Your task to perform on an android device: Open eBay Image 0: 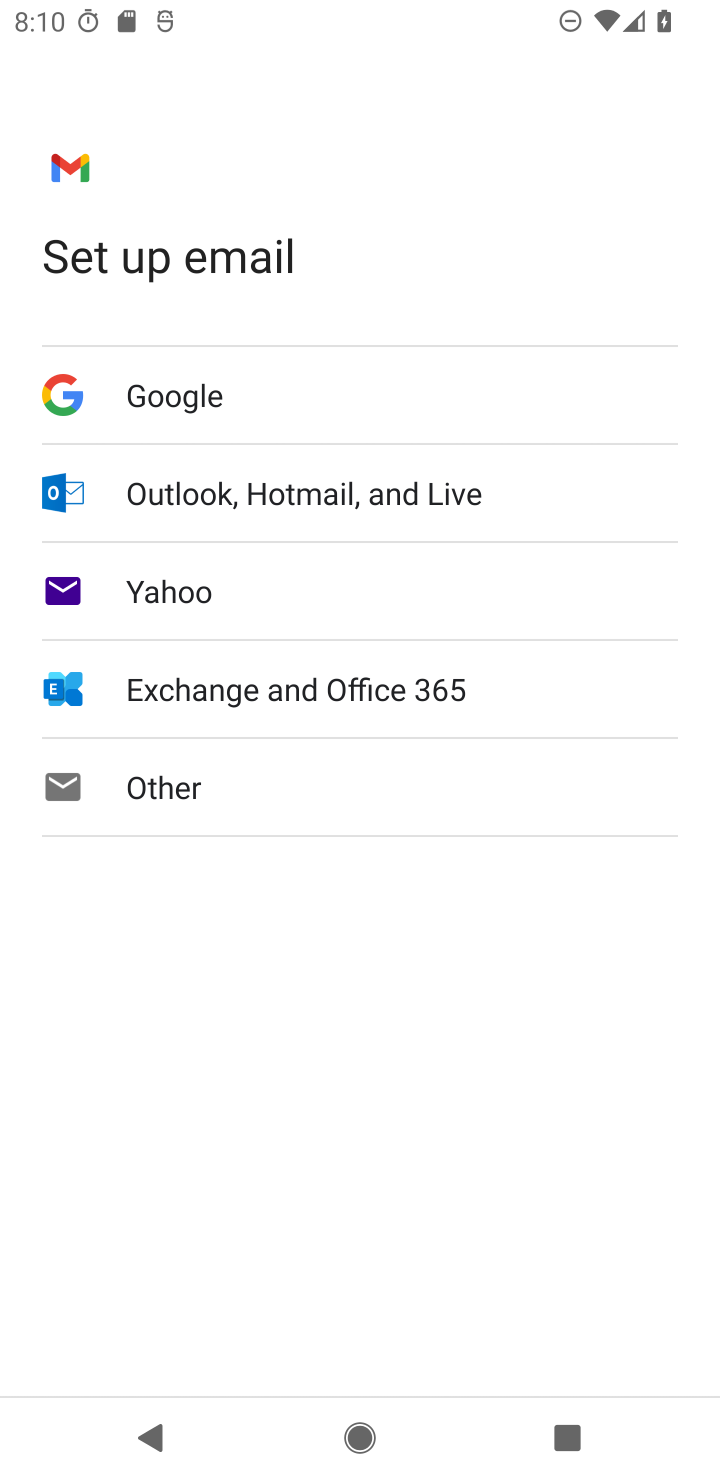
Step 0: press home button
Your task to perform on an android device: Open eBay Image 1: 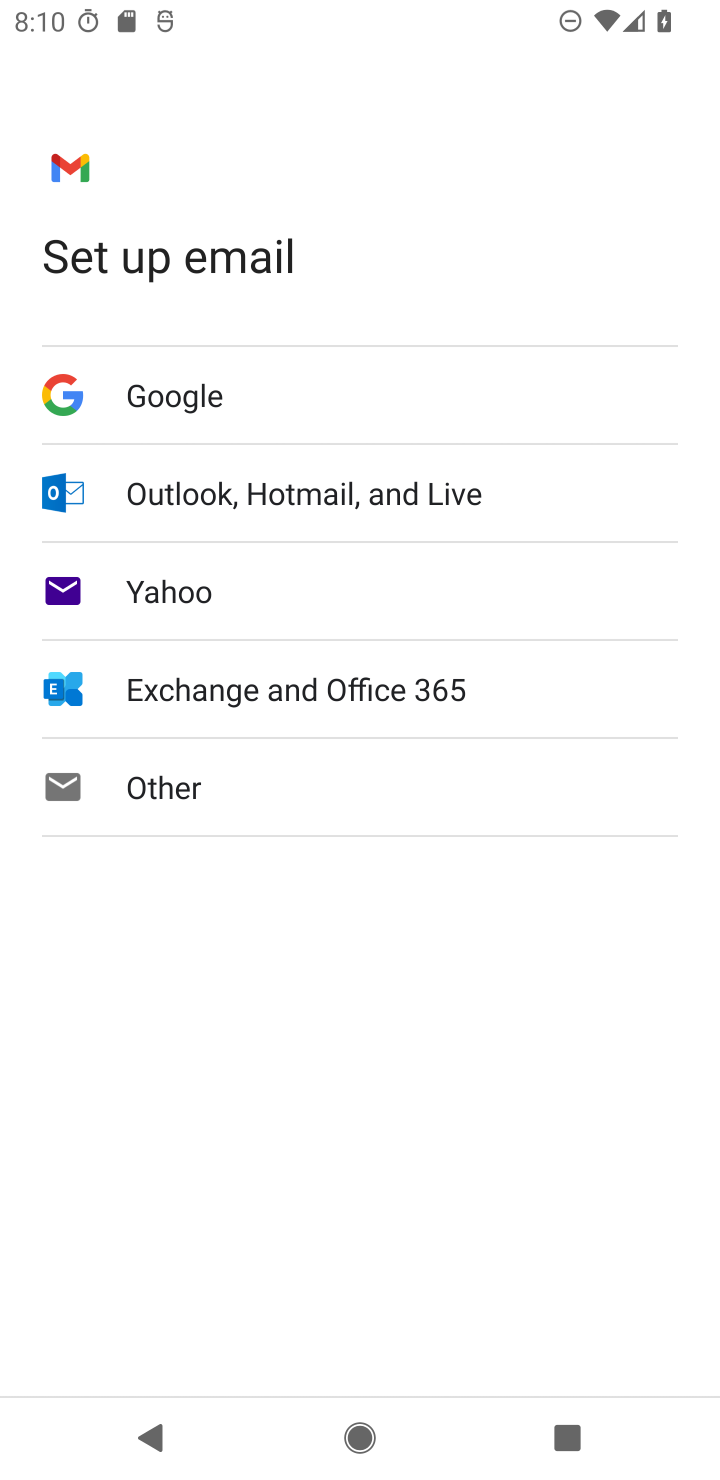
Step 1: press home button
Your task to perform on an android device: Open eBay Image 2: 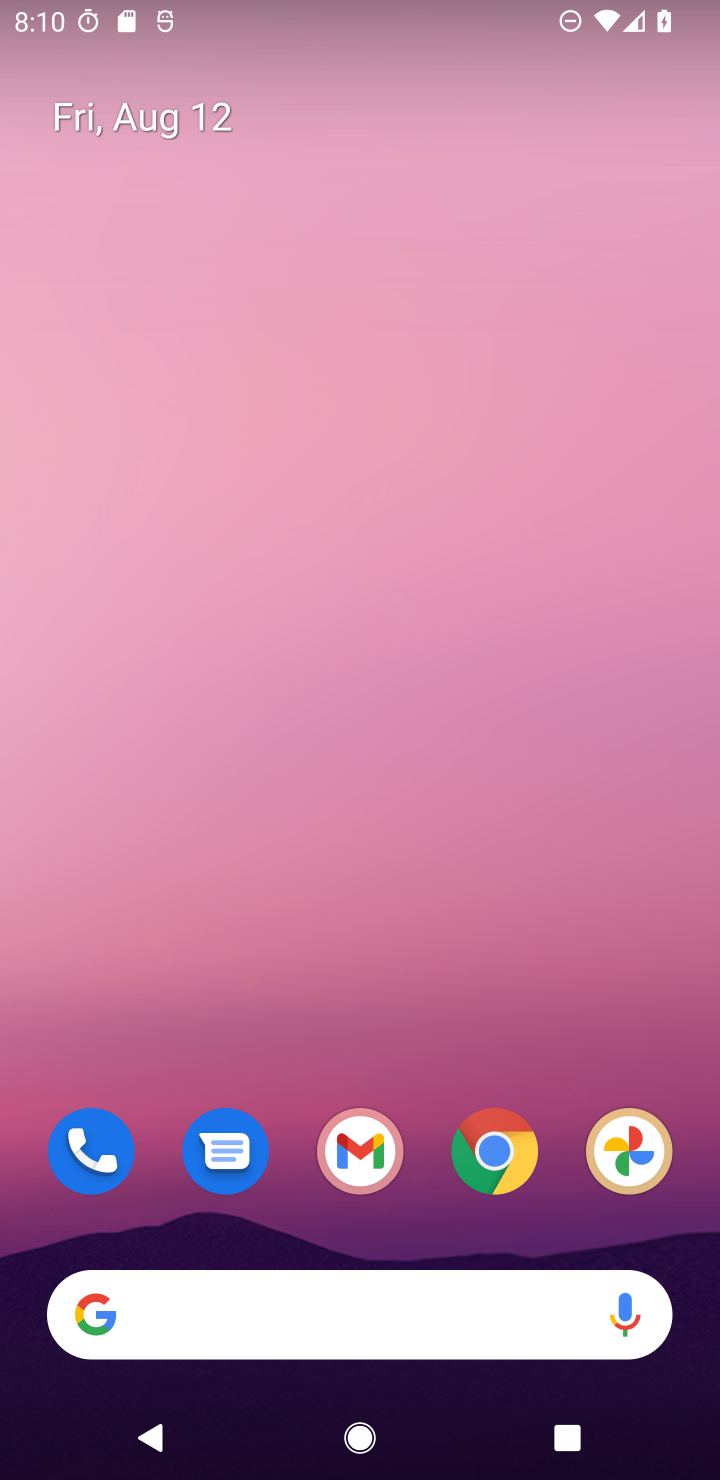
Step 2: drag from (357, 987) to (372, 20)
Your task to perform on an android device: Open eBay Image 3: 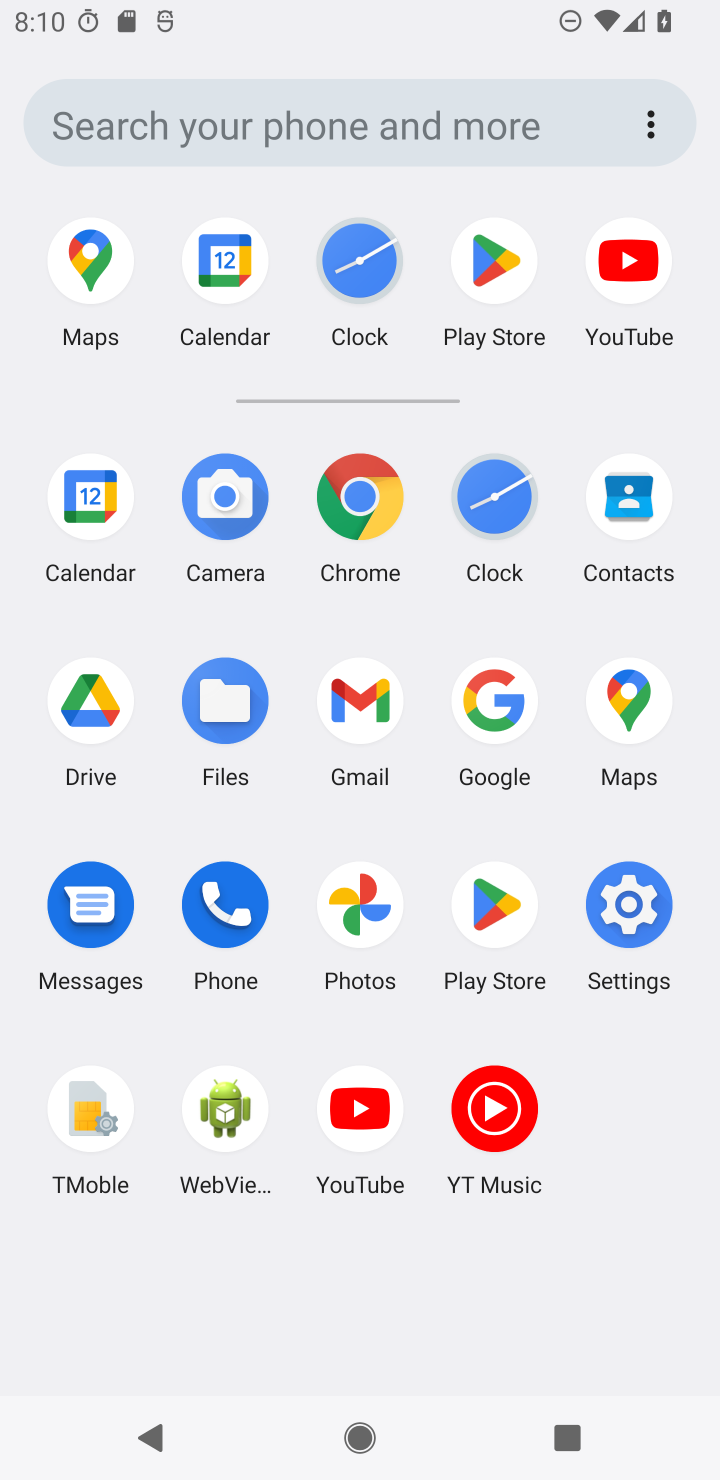
Step 3: click (367, 493)
Your task to perform on an android device: Open eBay Image 4: 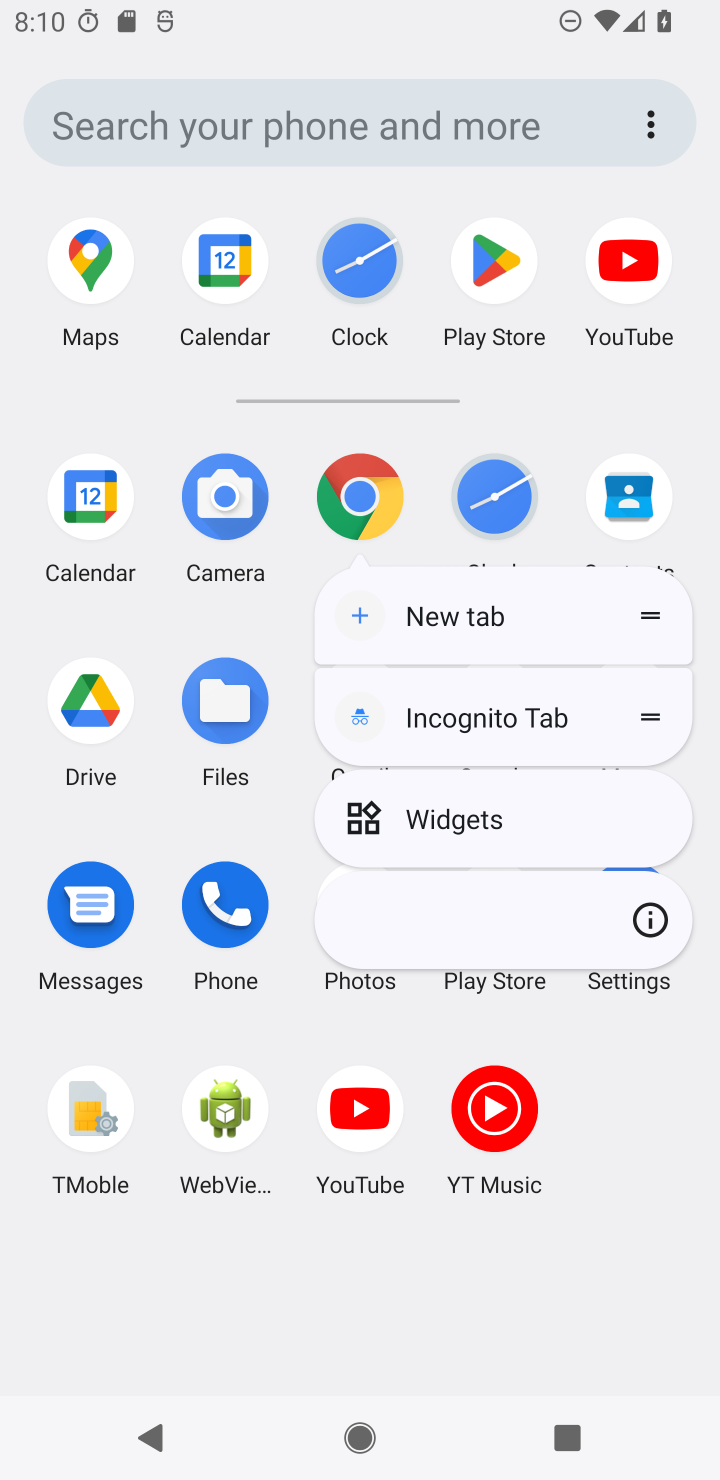
Step 4: click (365, 491)
Your task to perform on an android device: Open eBay Image 5: 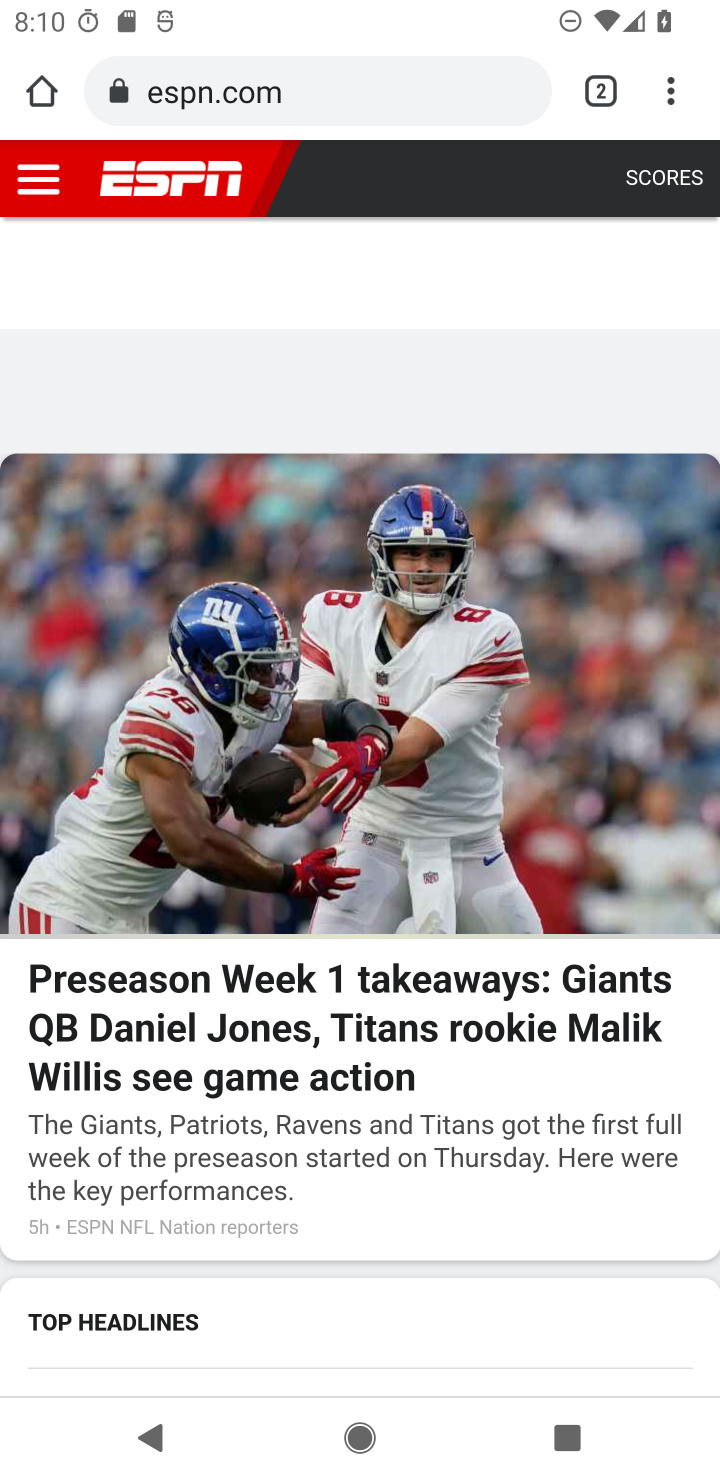
Step 5: click (352, 95)
Your task to perform on an android device: Open eBay Image 6: 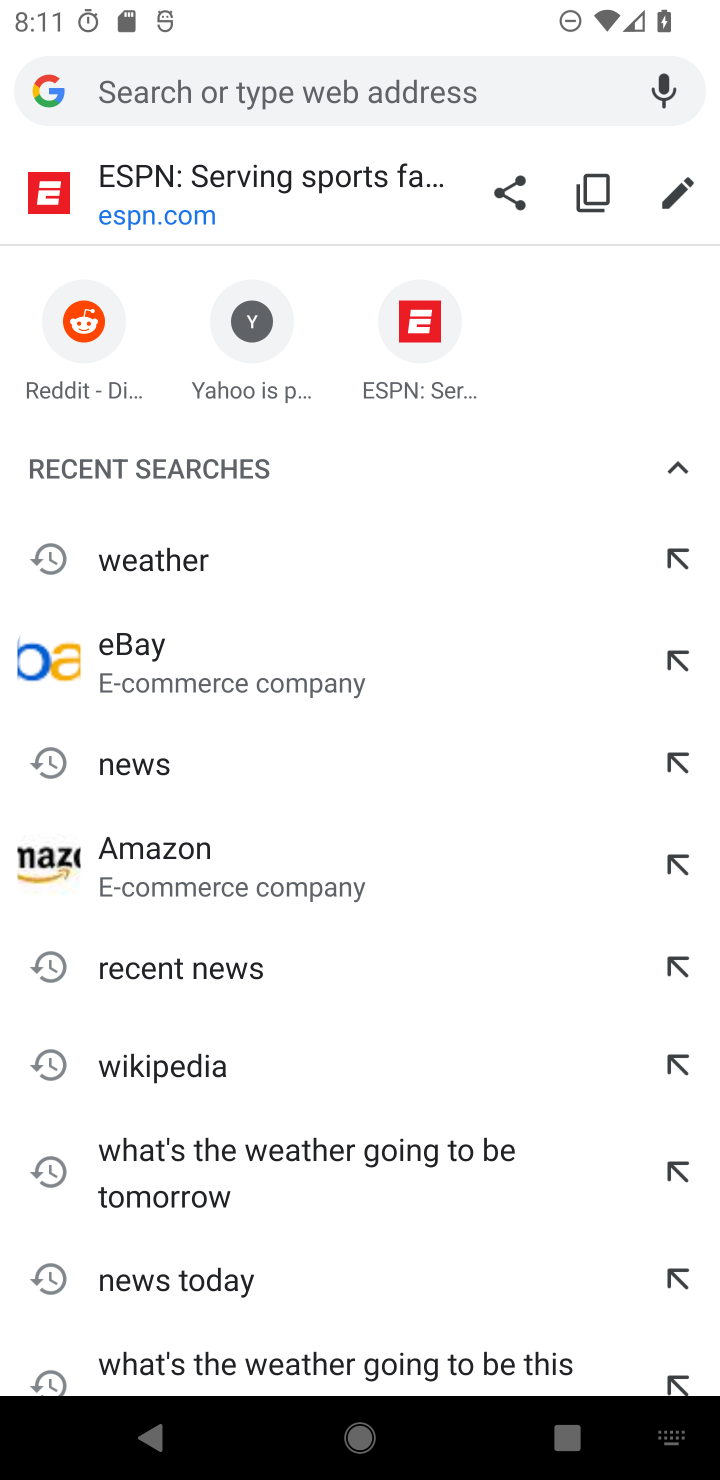
Step 6: type "ebay"
Your task to perform on an android device: Open eBay Image 7: 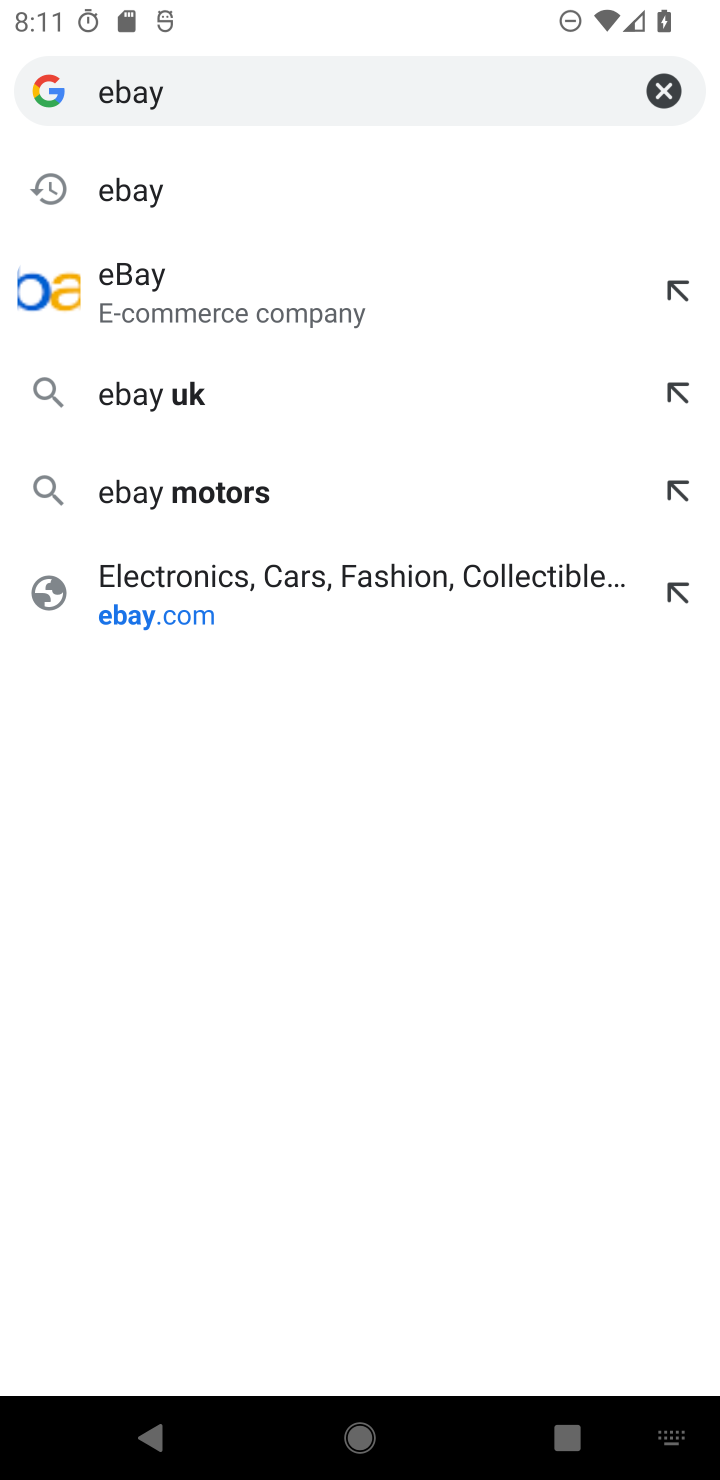
Step 7: click (97, 282)
Your task to perform on an android device: Open eBay Image 8: 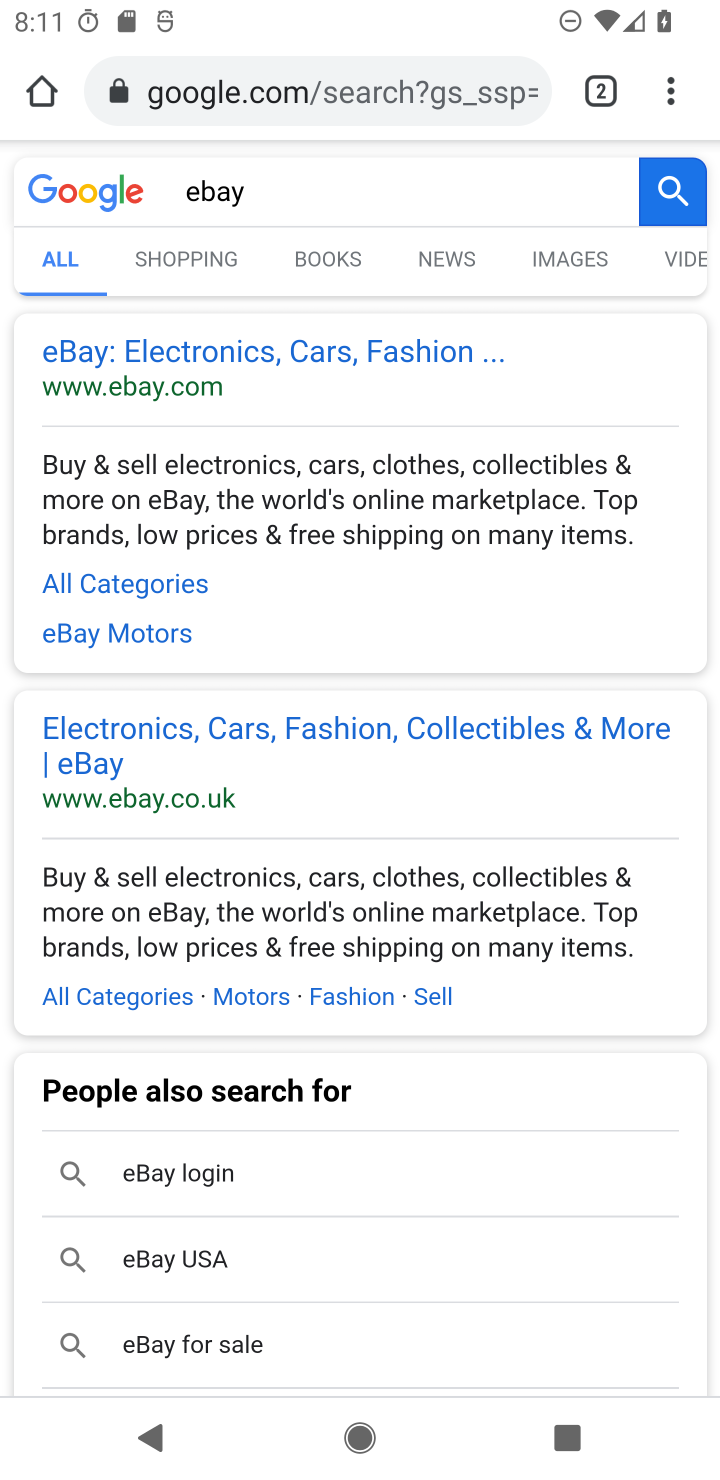
Step 8: click (176, 380)
Your task to perform on an android device: Open eBay Image 9: 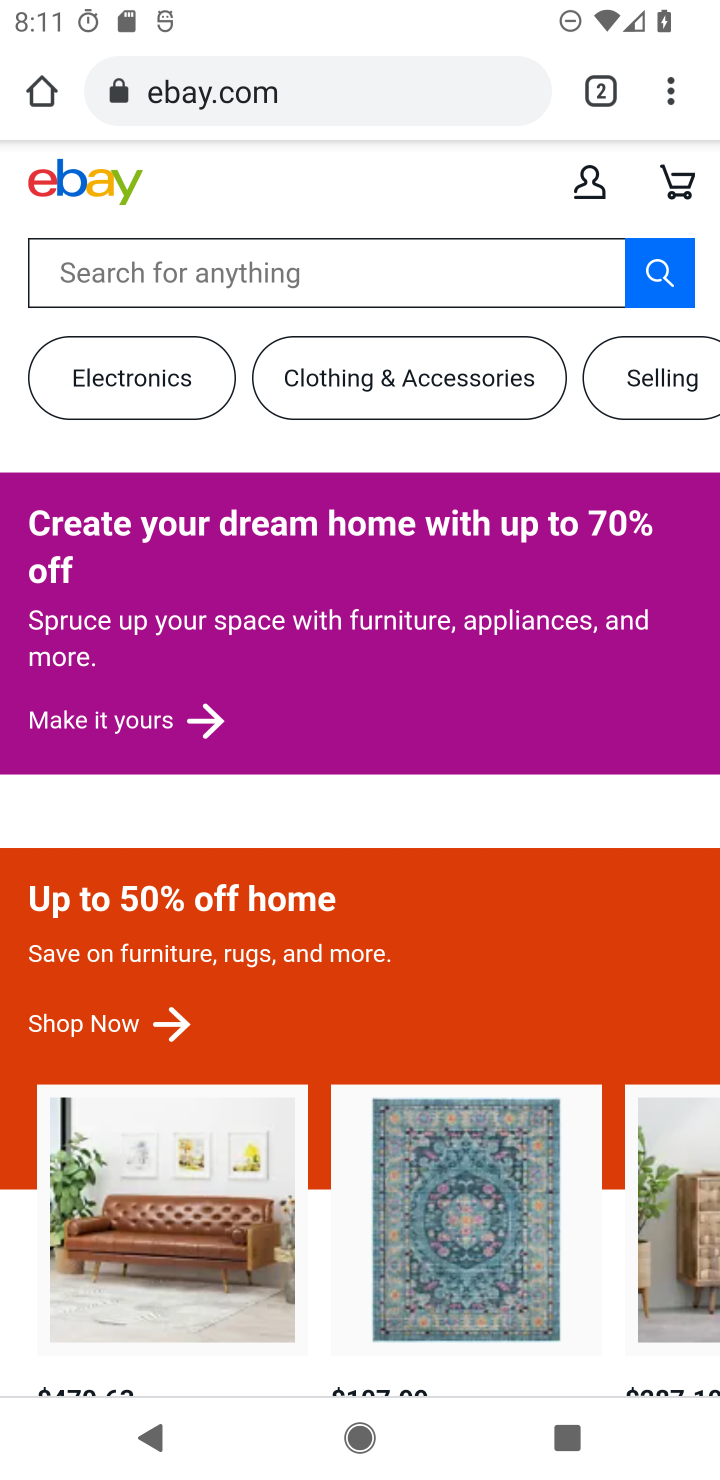
Step 9: task complete